Your task to perform on an android device: turn off priority inbox in the gmail app Image 0: 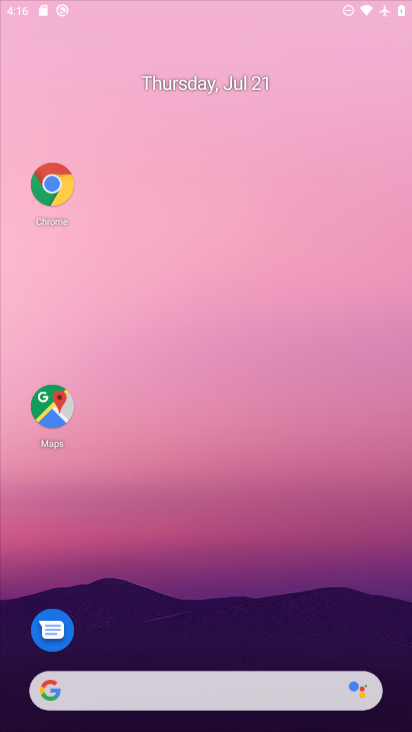
Step 0: click (231, 474)
Your task to perform on an android device: turn off priority inbox in the gmail app Image 1: 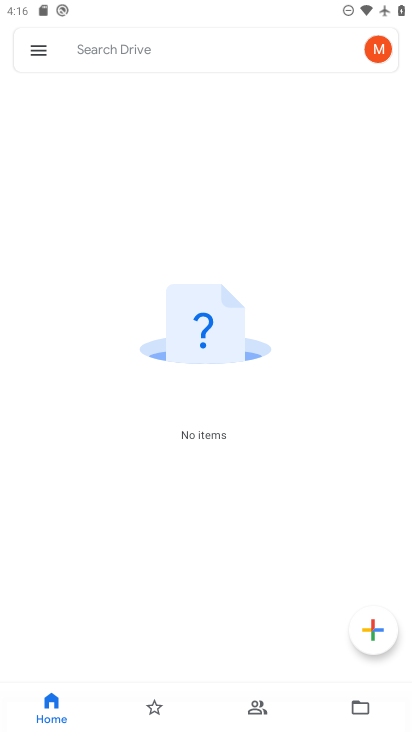
Step 1: press home button
Your task to perform on an android device: turn off priority inbox in the gmail app Image 2: 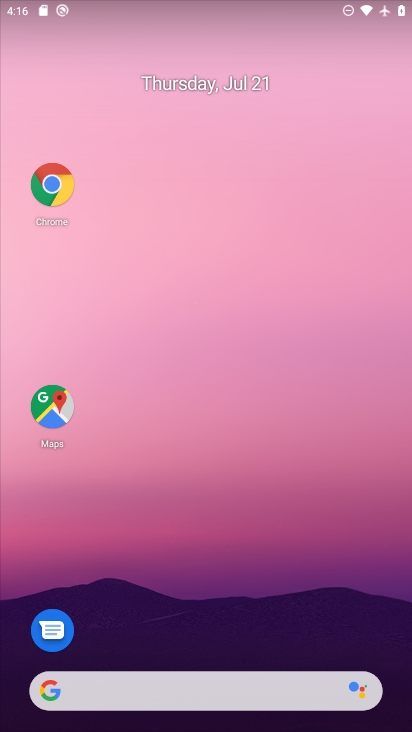
Step 2: drag from (213, 660) to (109, 3)
Your task to perform on an android device: turn off priority inbox in the gmail app Image 3: 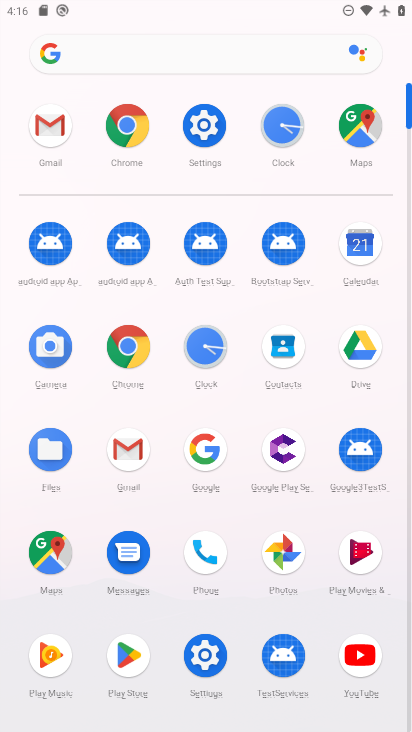
Step 3: click (134, 448)
Your task to perform on an android device: turn off priority inbox in the gmail app Image 4: 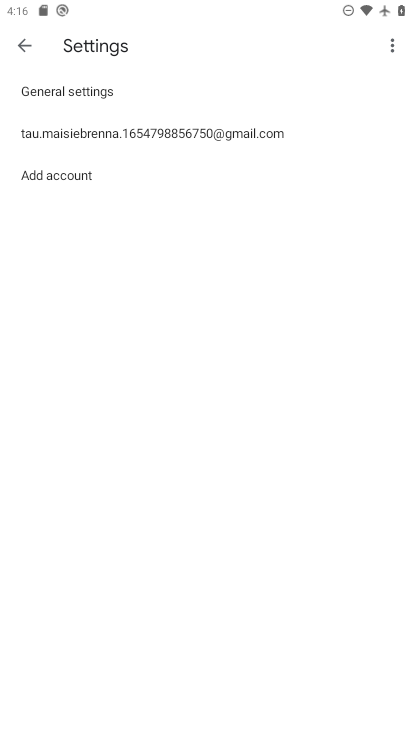
Step 4: click (118, 124)
Your task to perform on an android device: turn off priority inbox in the gmail app Image 5: 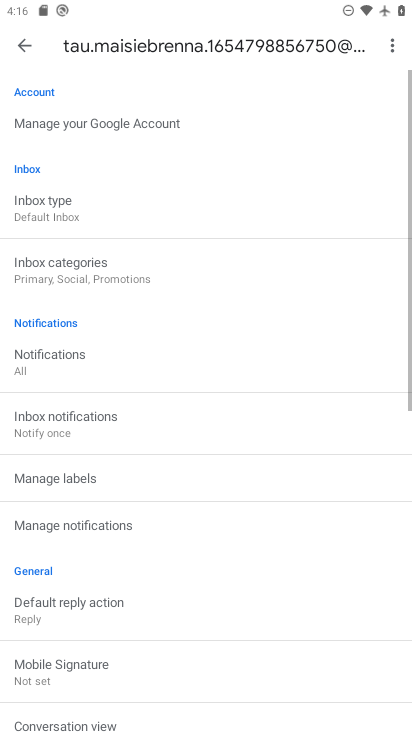
Step 5: click (68, 201)
Your task to perform on an android device: turn off priority inbox in the gmail app Image 6: 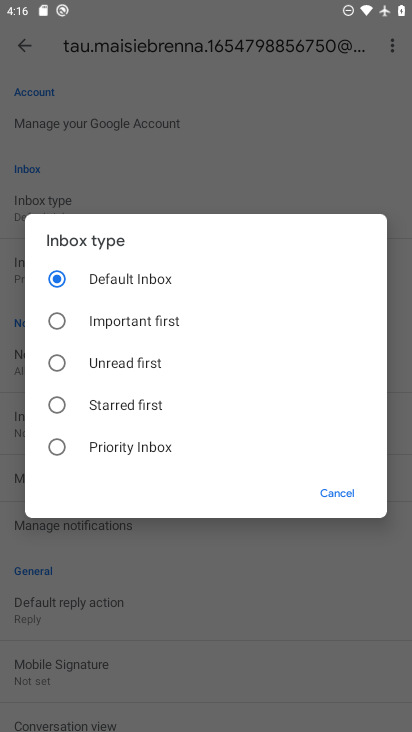
Step 6: task complete